Your task to perform on an android device: Search for razer naga on target, select the first entry, add it to the cart, then select checkout. Image 0: 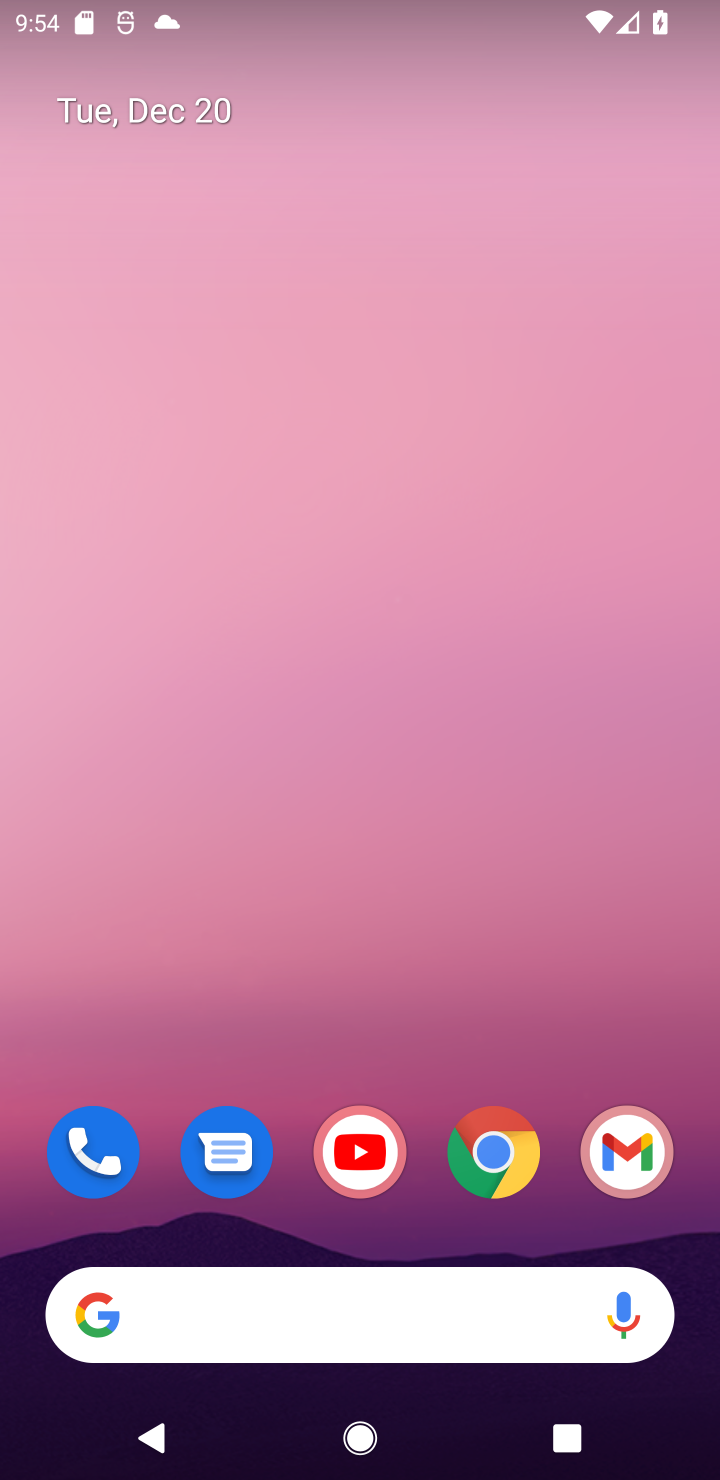
Step 0: click (486, 1147)
Your task to perform on an android device: Search for razer naga on target, select the first entry, add it to the cart, then select checkout. Image 1: 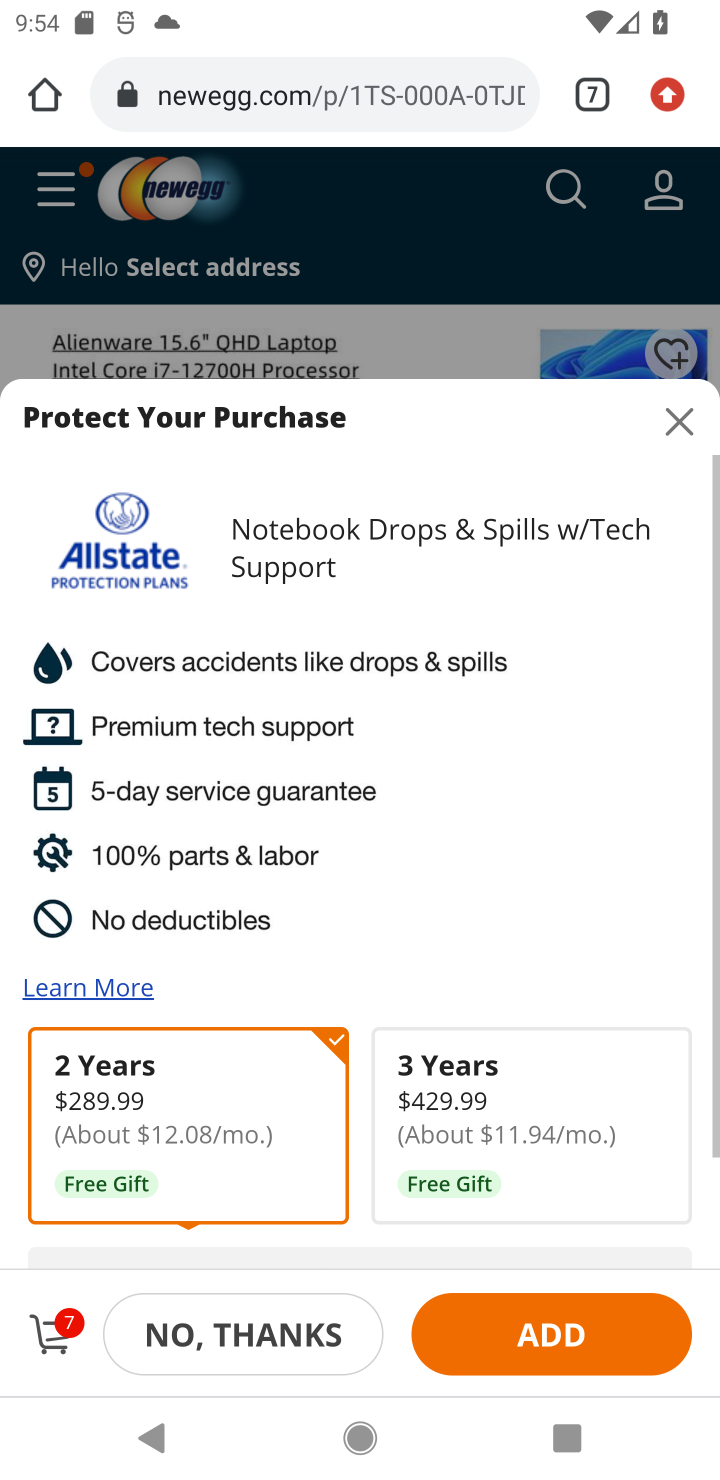
Step 1: click (588, 84)
Your task to perform on an android device: Search for razer naga on target, select the first entry, add it to the cart, then select checkout. Image 2: 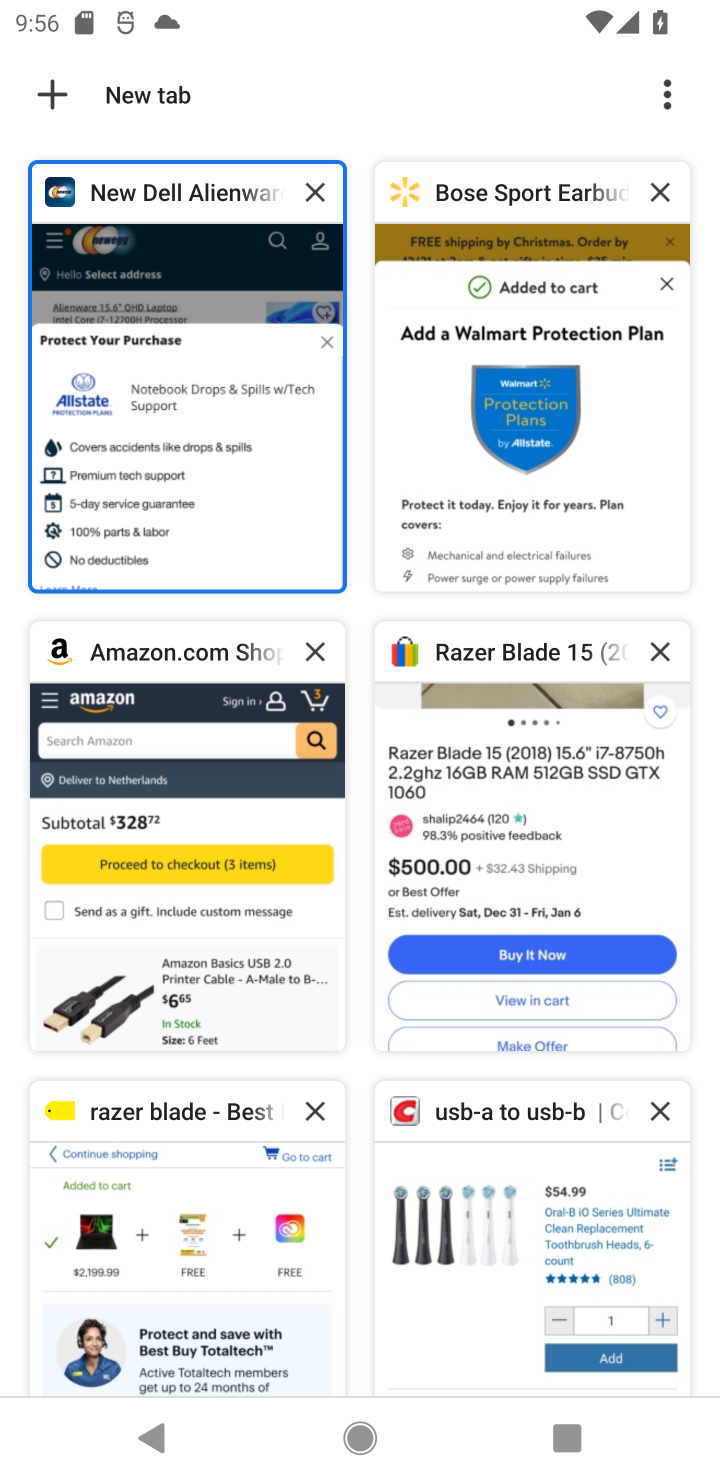
Step 2: drag from (448, 1208) to (421, 517)
Your task to perform on an android device: Search for razer naga on target, select the first entry, add it to the cart, then select checkout. Image 3: 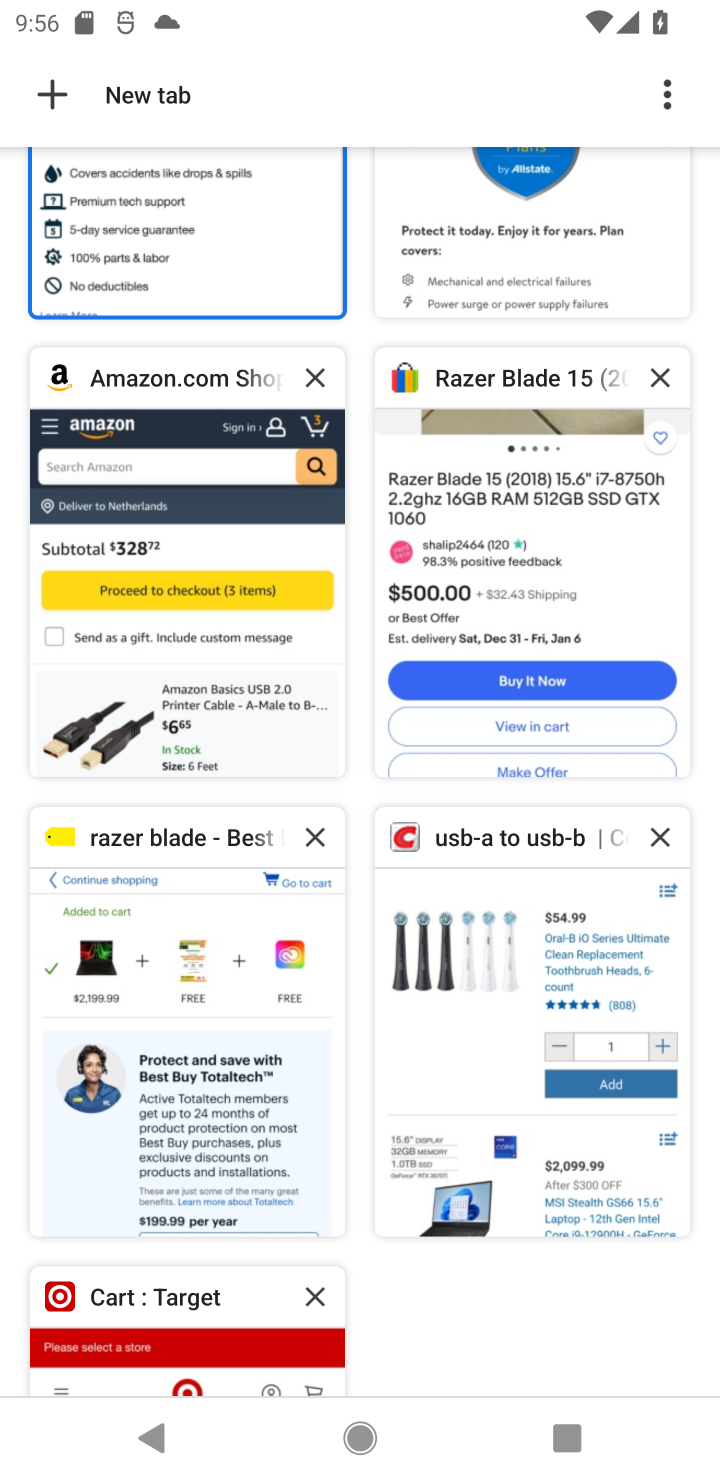
Step 3: click (211, 1306)
Your task to perform on an android device: Search for razer naga on target, select the first entry, add it to the cart, then select checkout. Image 4: 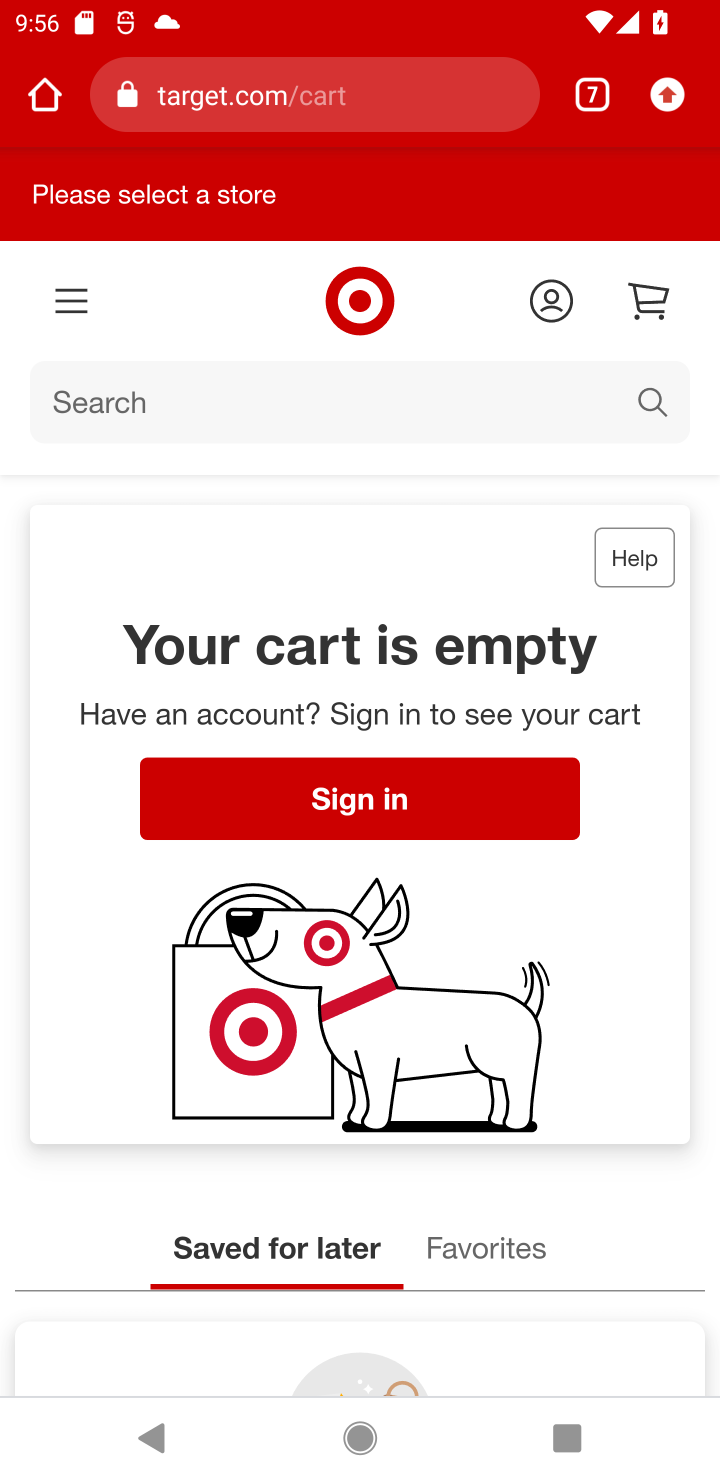
Step 4: click (218, 393)
Your task to perform on an android device: Search for razer naga on target, select the first entry, add it to the cart, then select checkout. Image 5: 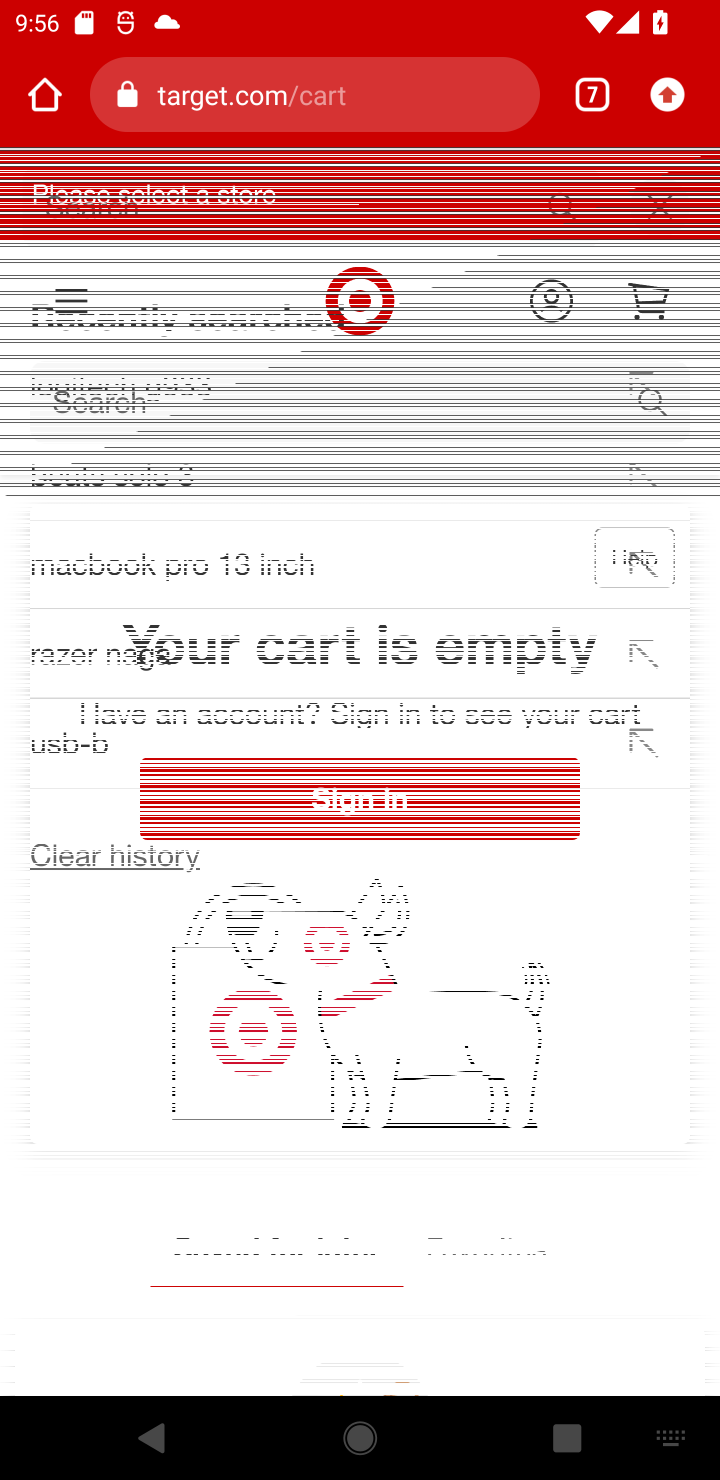
Step 5: type "razer naga"
Your task to perform on an android device: Search for razer naga on target, select the first entry, add it to the cart, then select checkout. Image 6: 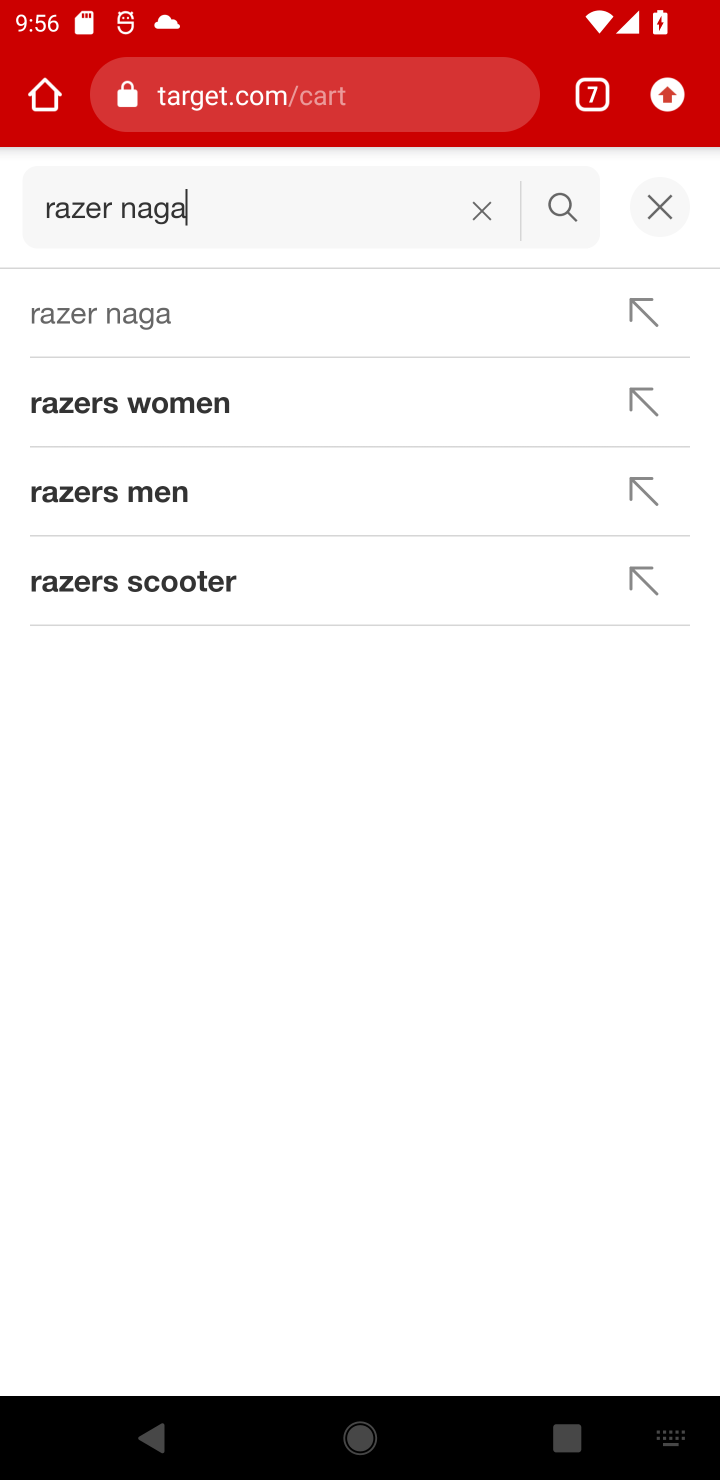
Step 6: click (151, 313)
Your task to perform on an android device: Search for razer naga on target, select the first entry, add it to the cart, then select checkout. Image 7: 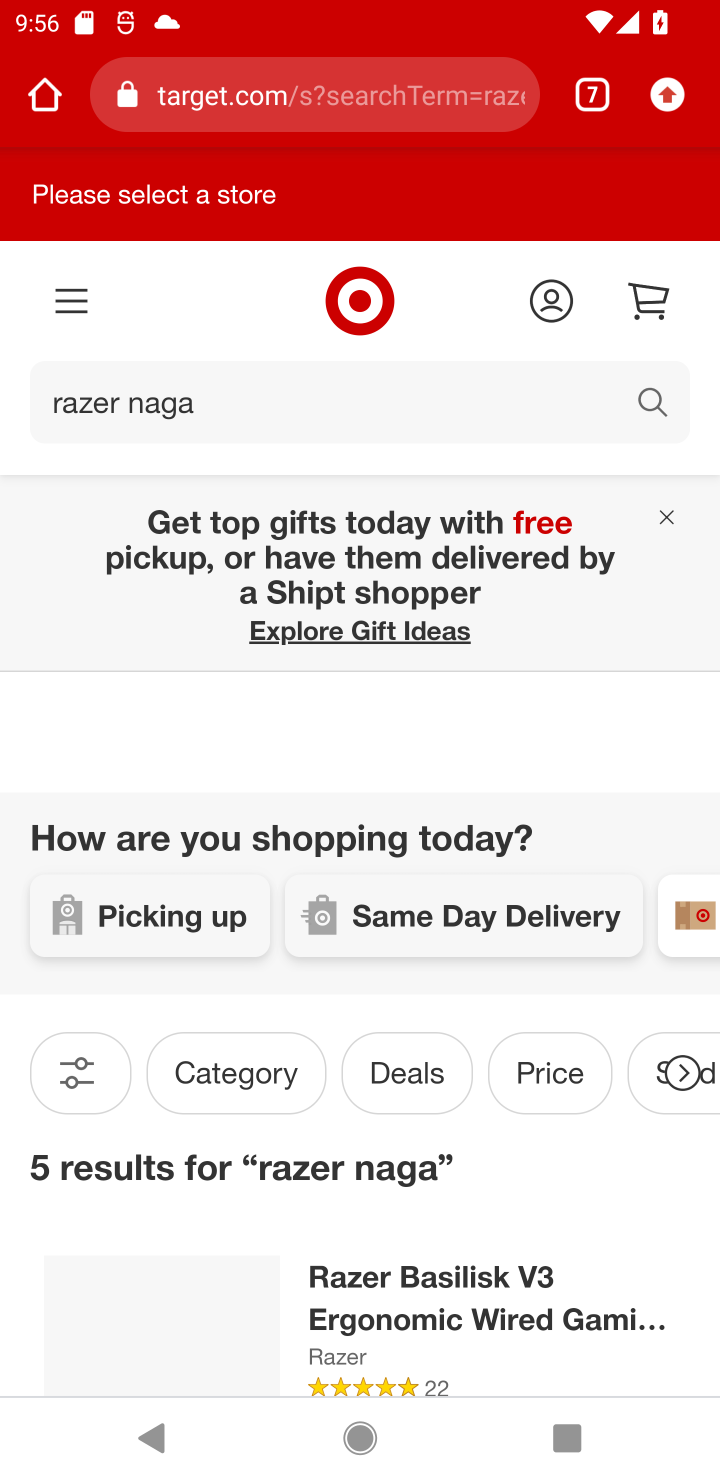
Step 7: task complete